Your task to perform on an android device: Open calendar and show me the second week of next month Image 0: 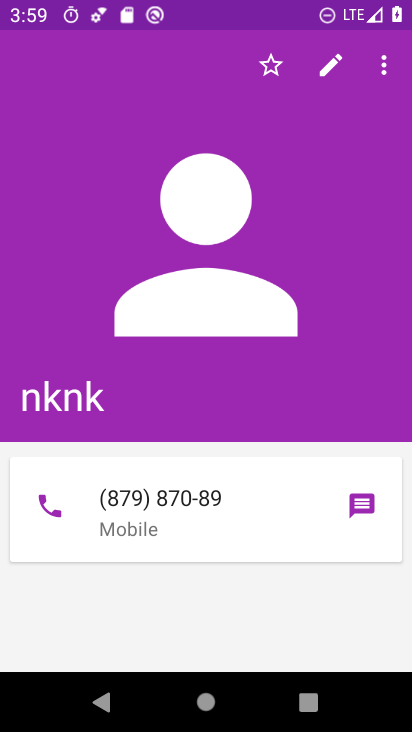
Step 0: press home button
Your task to perform on an android device: Open calendar and show me the second week of next month Image 1: 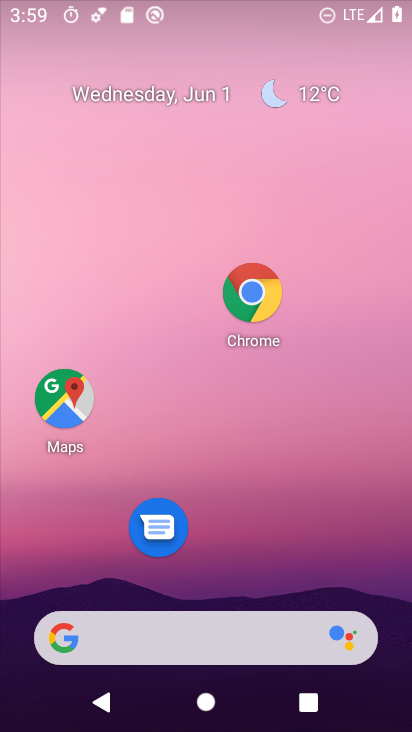
Step 1: drag from (216, 695) to (217, 163)
Your task to perform on an android device: Open calendar and show me the second week of next month Image 2: 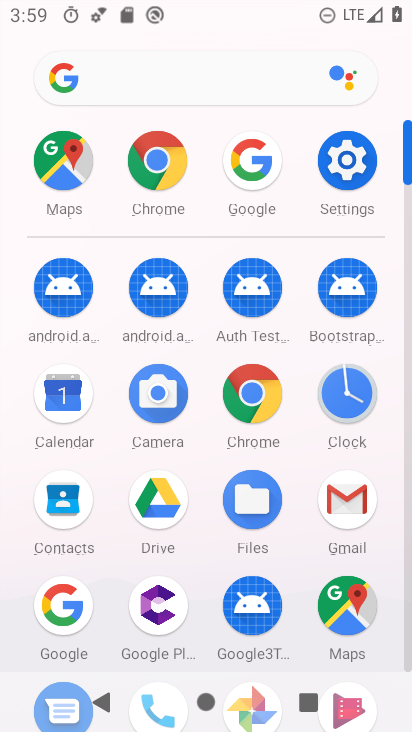
Step 2: drag from (217, 552) to (261, 183)
Your task to perform on an android device: Open calendar and show me the second week of next month Image 3: 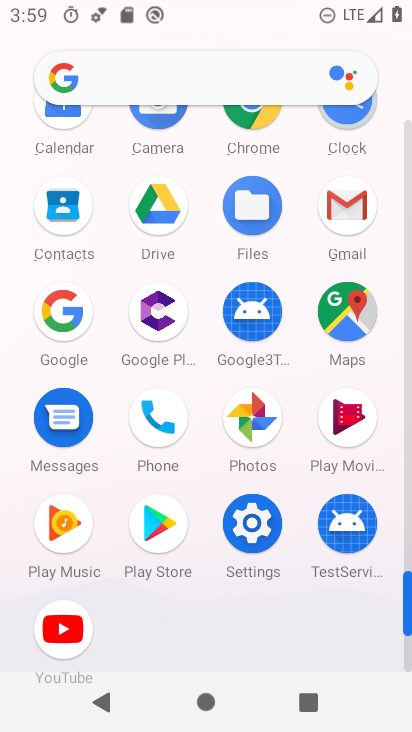
Step 3: click (90, 143)
Your task to perform on an android device: Open calendar and show me the second week of next month Image 4: 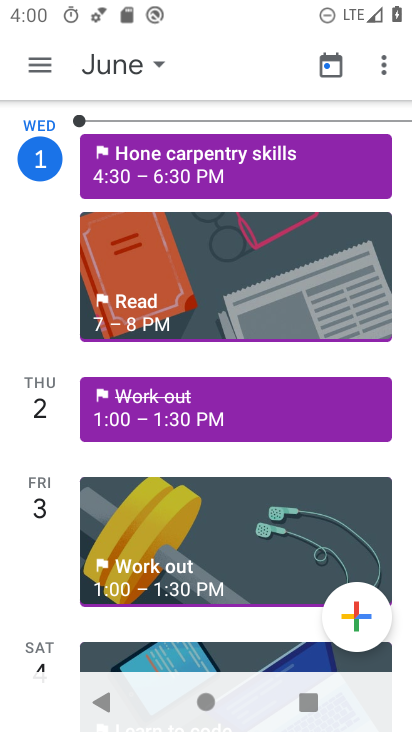
Step 4: click (144, 72)
Your task to perform on an android device: Open calendar and show me the second week of next month Image 5: 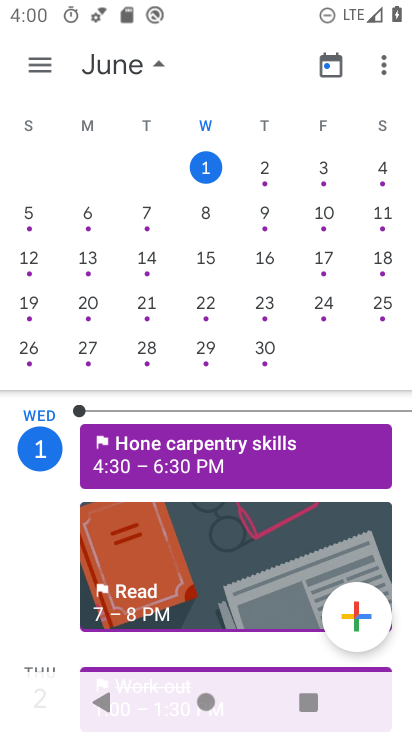
Step 5: drag from (356, 332) to (3, 335)
Your task to perform on an android device: Open calendar and show me the second week of next month Image 6: 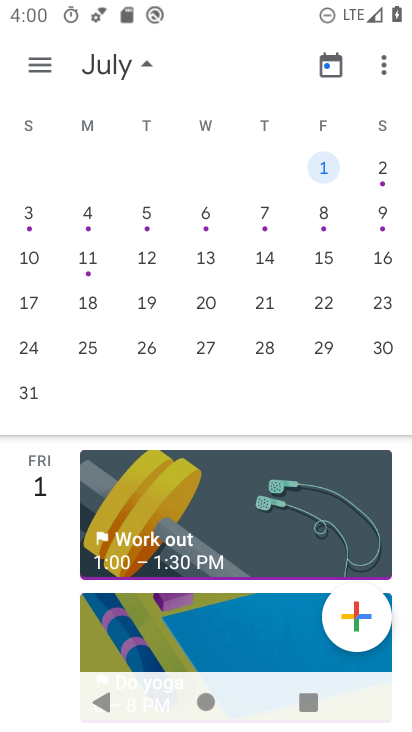
Step 6: click (36, 247)
Your task to perform on an android device: Open calendar and show me the second week of next month Image 7: 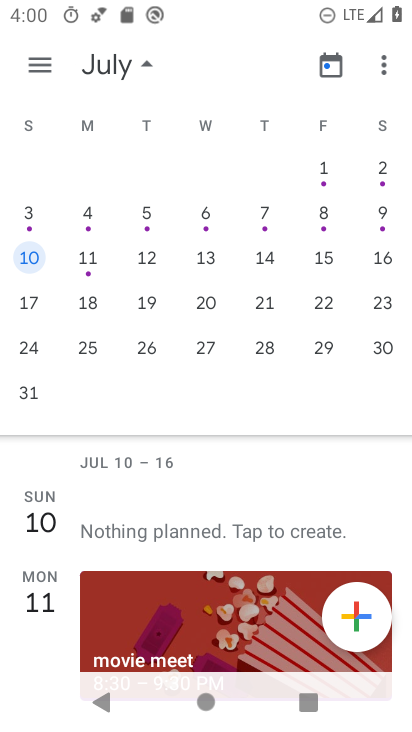
Step 7: task complete